Your task to perform on an android device: change the clock display to analog Image 0: 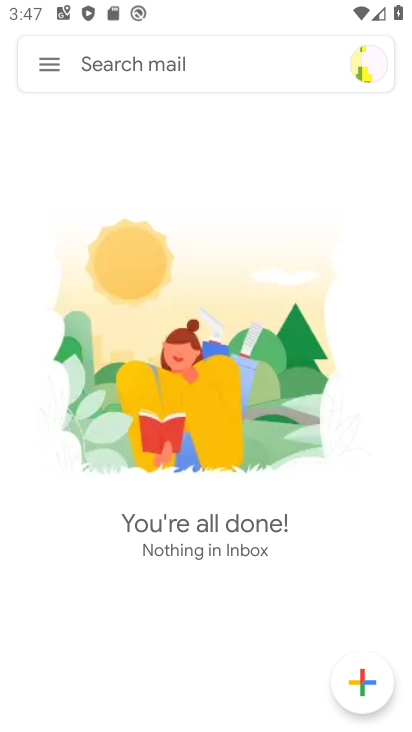
Step 0: press back button
Your task to perform on an android device: change the clock display to analog Image 1: 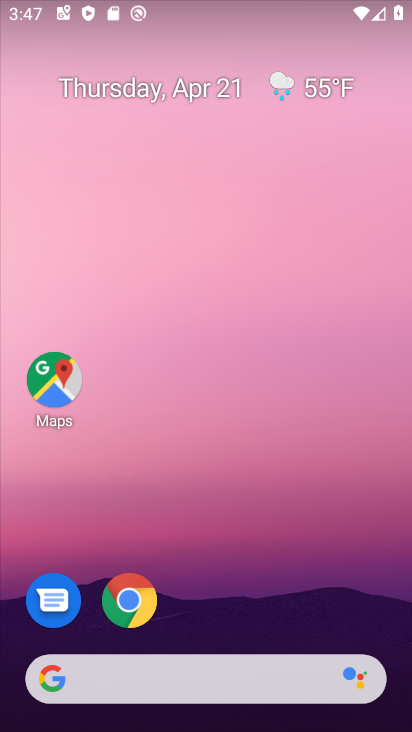
Step 1: drag from (268, 570) to (369, 112)
Your task to perform on an android device: change the clock display to analog Image 2: 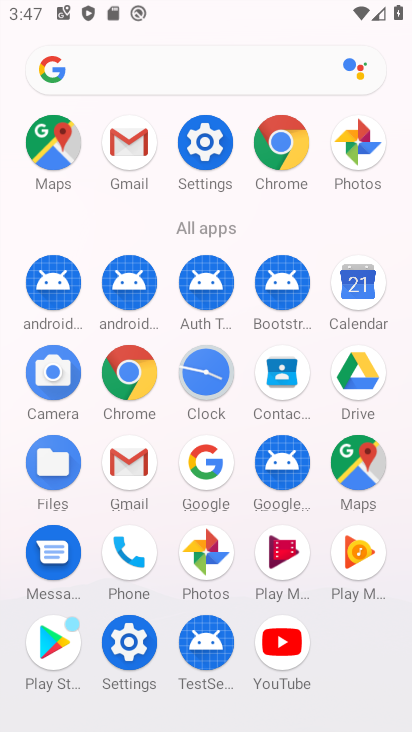
Step 2: click (208, 388)
Your task to perform on an android device: change the clock display to analog Image 3: 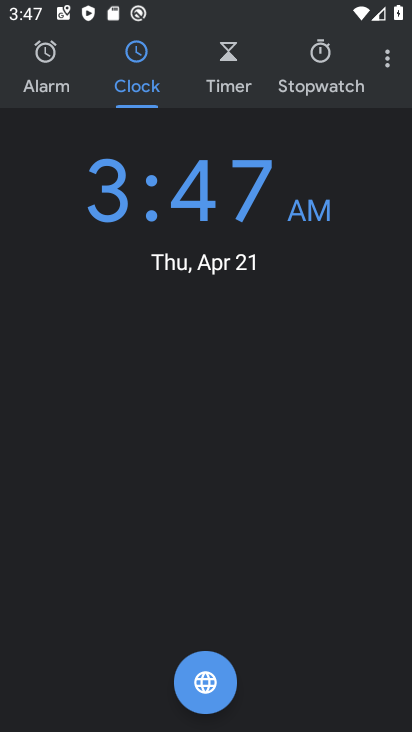
Step 3: click (378, 63)
Your task to perform on an android device: change the clock display to analog Image 4: 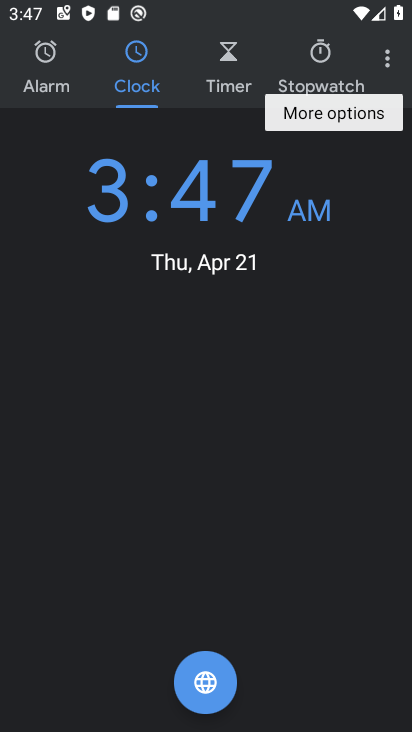
Step 4: click (360, 114)
Your task to perform on an android device: change the clock display to analog Image 5: 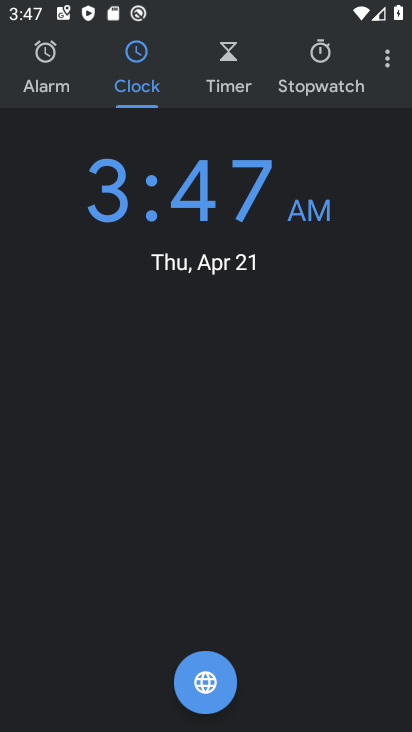
Step 5: click (379, 64)
Your task to perform on an android device: change the clock display to analog Image 6: 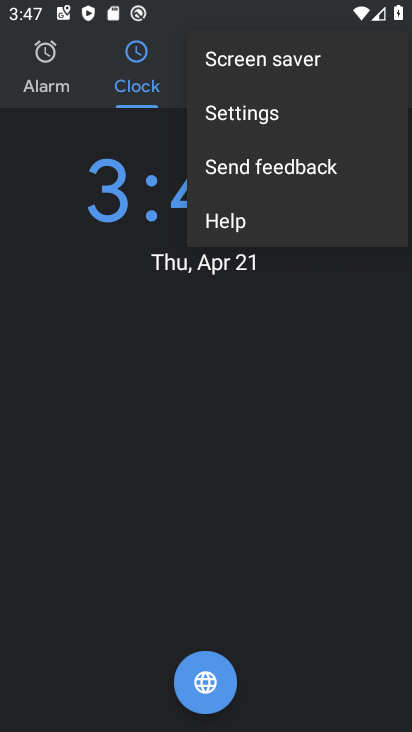
Step 6: click (344, 113)
Your task to perform on an android device: change the clock display to analog Image 7: 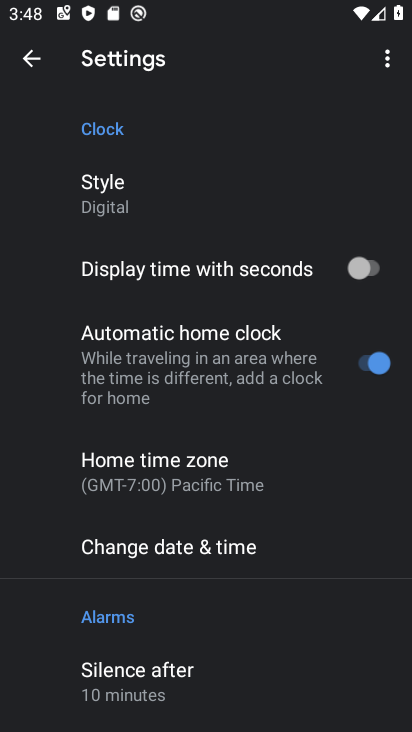
Step 7: click (231, 203)
Your task to perform on an android device: change the clock display to analog Image 8: 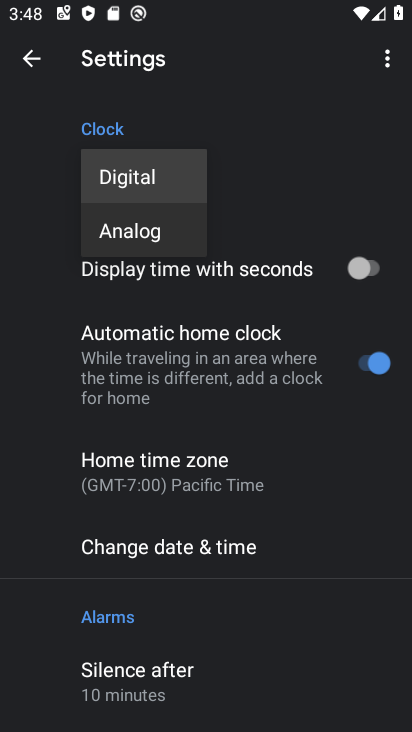
Step 8: click (196, 227)
Your task to perform on an android device: change the clock display to analog Image 9: 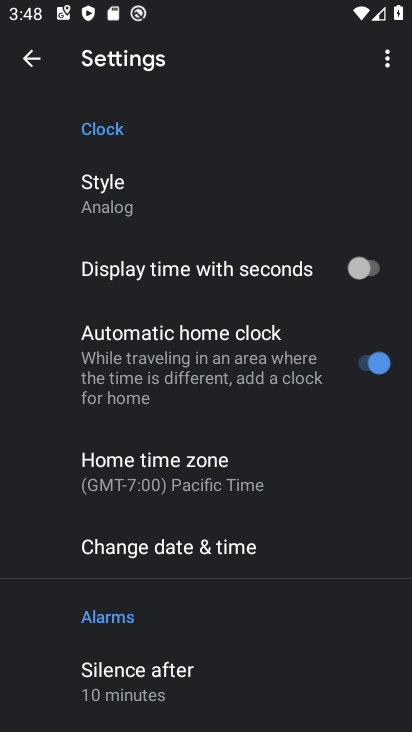
Step 9: task complete